Your task to perform on an android device: install app "Google Duo" Image 0: 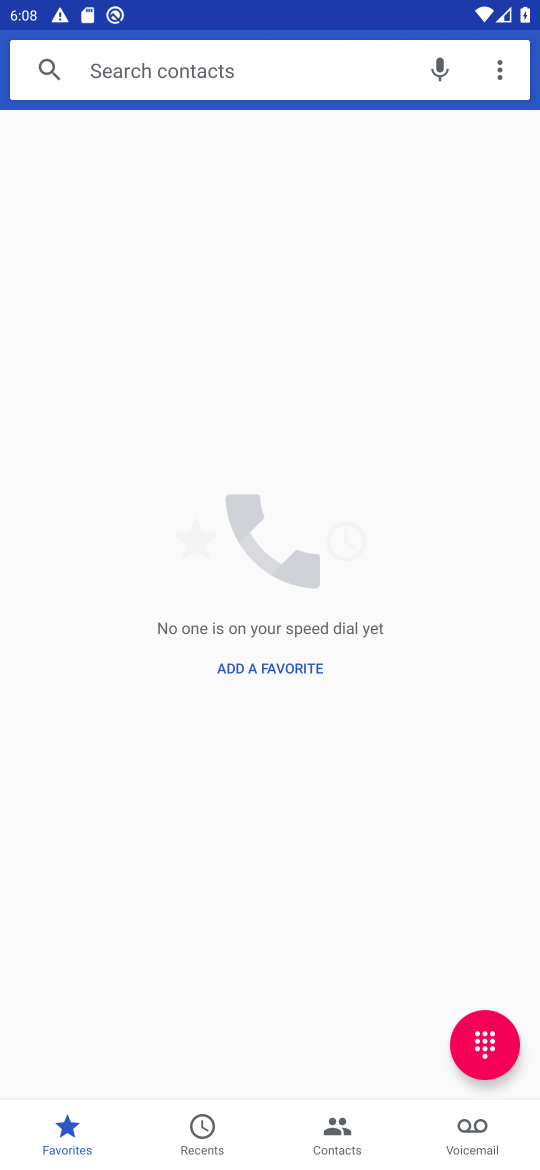
Step 0: press home button
Your task to perform on an android device: install app "Google Duo" Image 1: 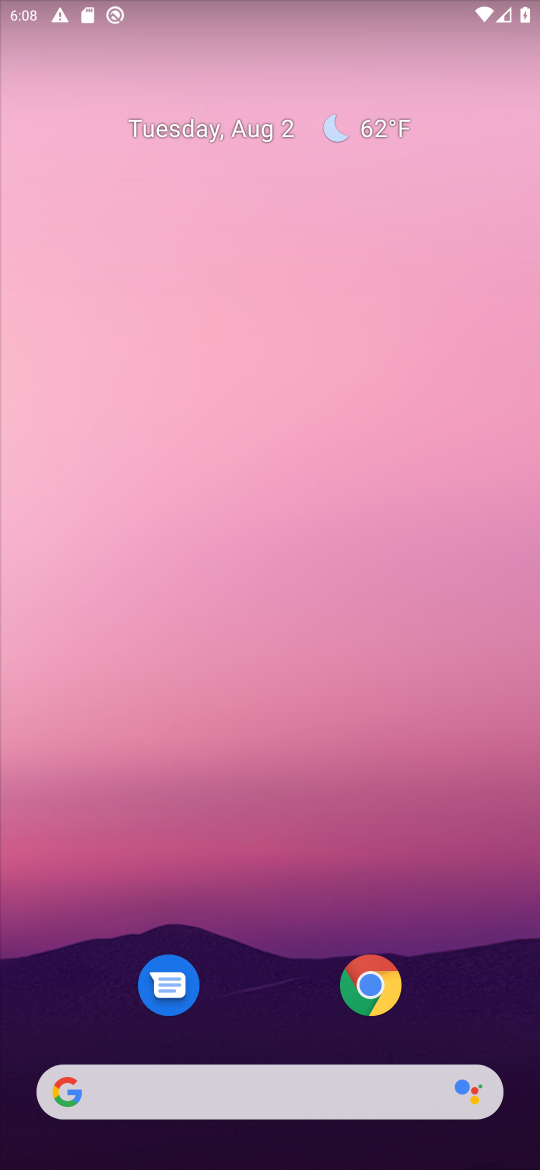
Step 1: drag from (233, 939) to (189, 351)
Your task to perform on an android device: install app "Google Duo" Image 2: 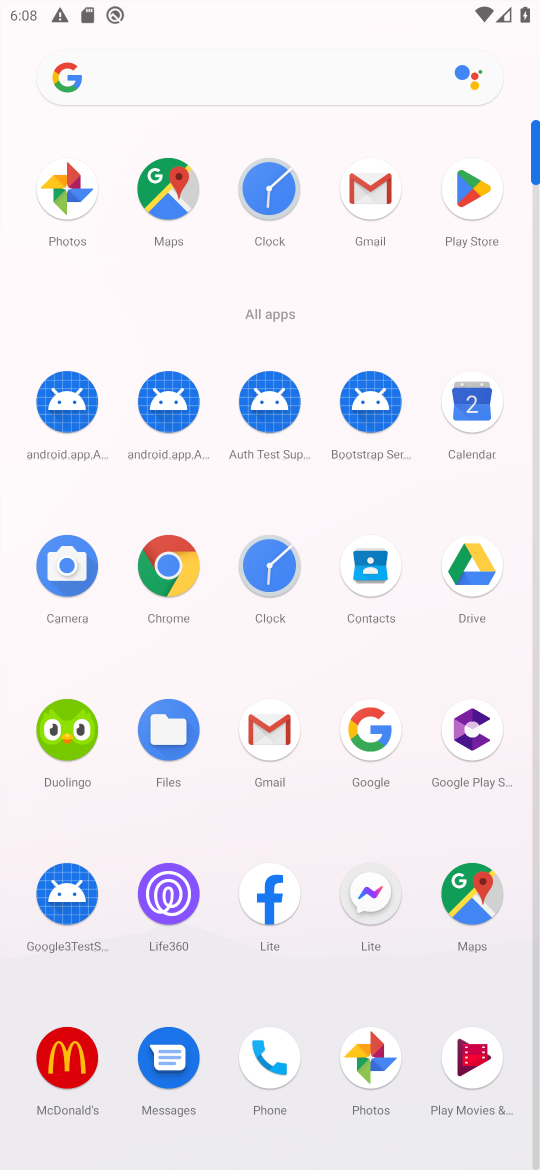
Step 2: click (477, 208)
Your task to perform on an android device: install app "Google Duo" Image 3: 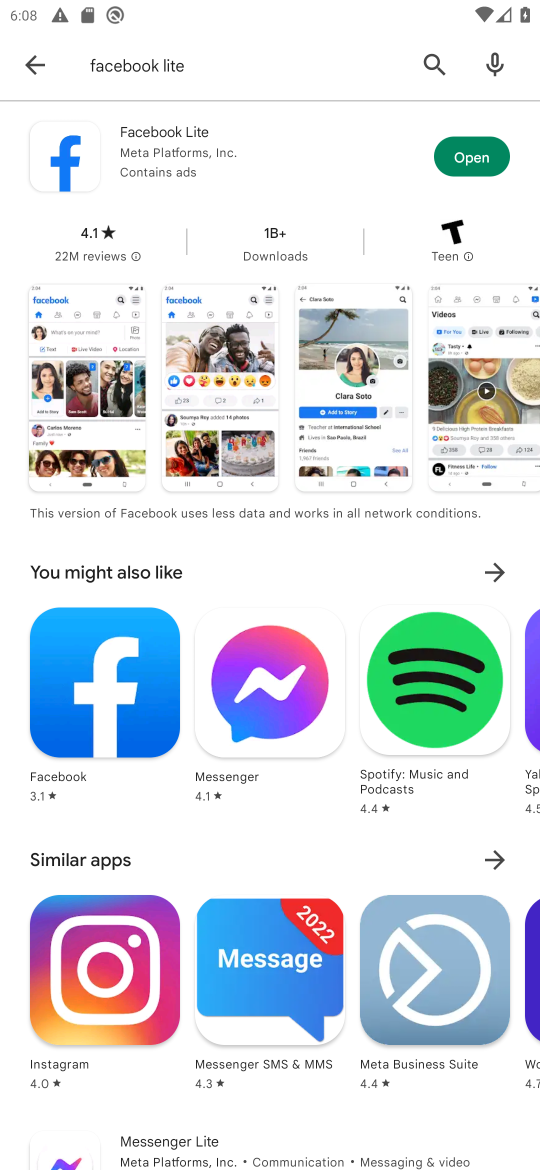
Step 3: click (432, 66)
Your task to perform on an android device: install app "Google Duo" Image 4: 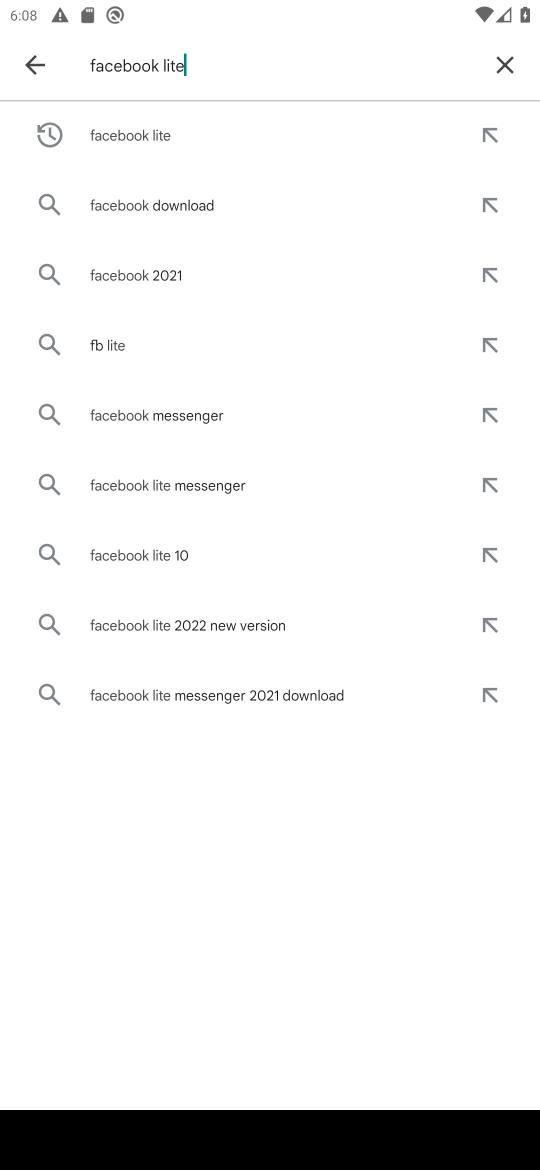
Step 4: click (493, 65)
Your task to perform on an android device: install app "Google Duo" Image 5: 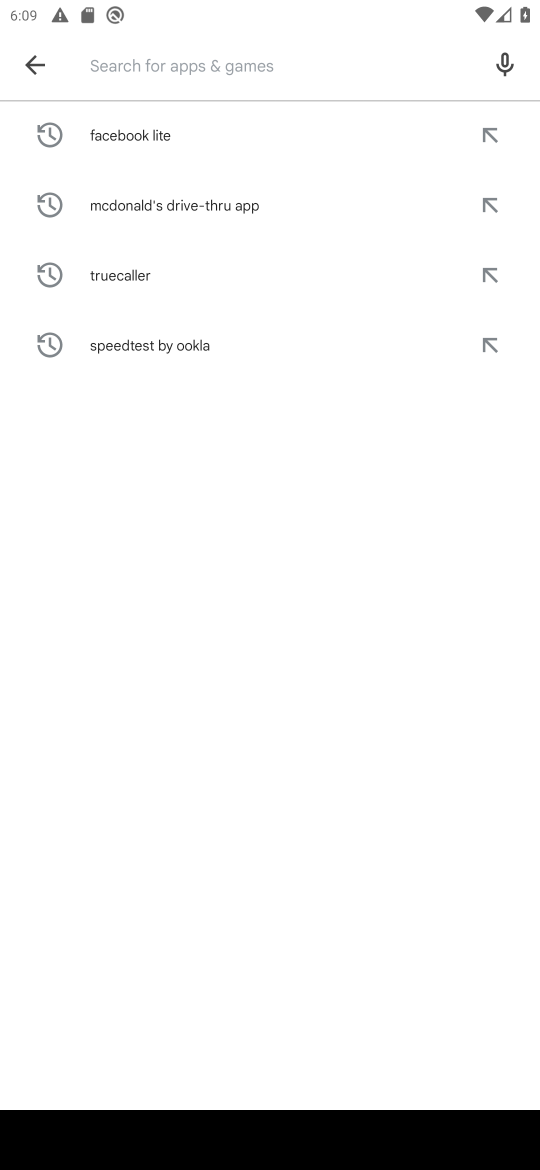
Step 5: type "Google Duo"
Your task to perform on an android device: install app "Google Duo" Image 6: 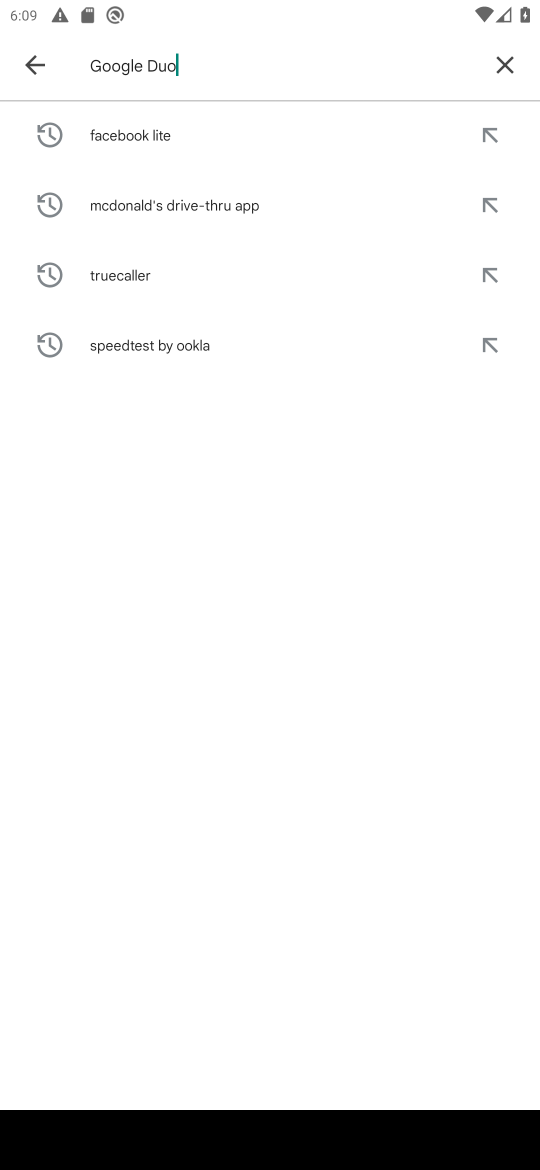
Step 6: type ""
Your task to perform on an android device: install app "Google Duo" Image 7: 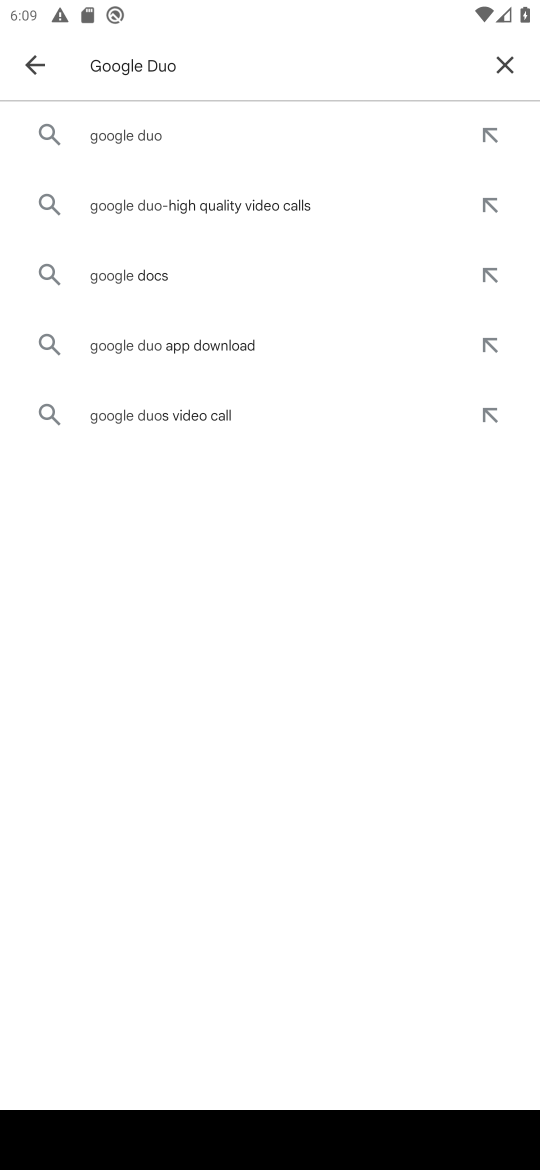
Step 7: click (154, 148)
Your task to perform on an android device: install app "Google Duo" Image 8: 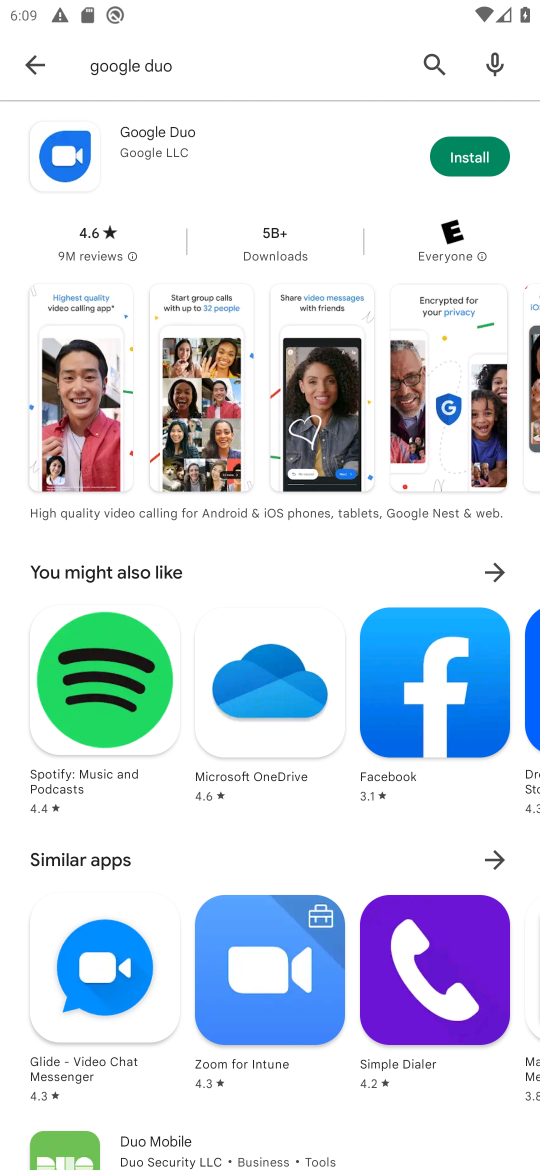
Step 8: click (454, 151)
Your task to perform on an android device: install app "Google Duo" Image 9: 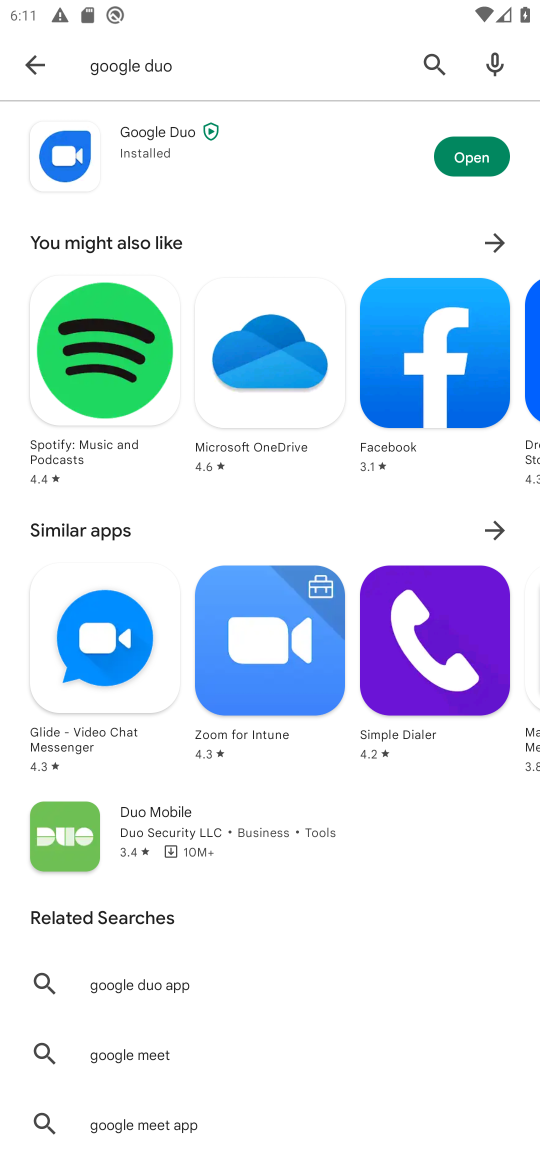
Step 9: click (441, 148)
Your task to perform on an android device: install app "Google Duo" Image 10: 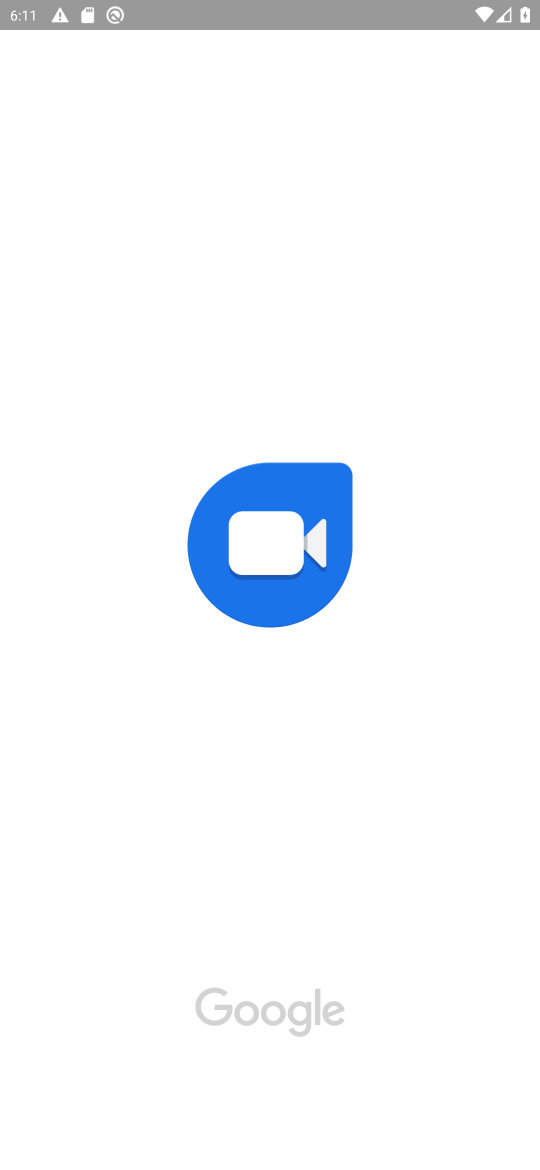
Step 10: task complete